Your task to perform on an android device: Open Google Chrome and click the shortcut for Amazon.com Image 0: 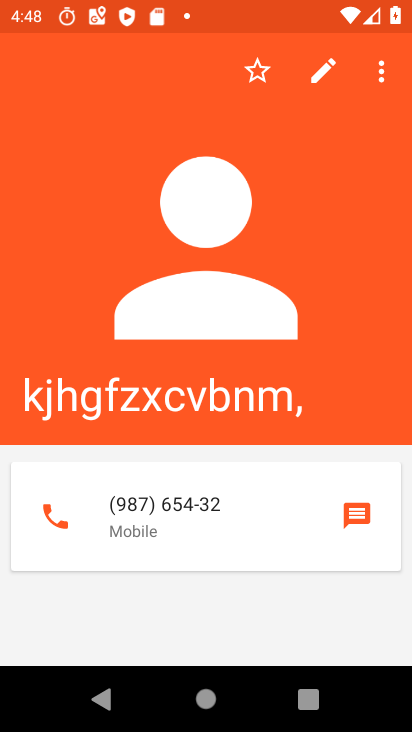
Step 0: press home button
Your task to perform on an android device: Open Google Chrome and click the shortcut for Amazon.com Image 1: 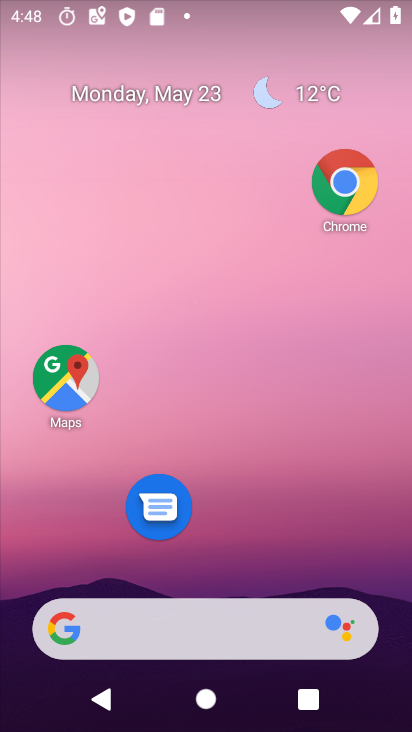
Step 1: click (355, 190)
Your task to perform on an android device: Open Google Chrome and click the shortcut for Amazon.com Image 2: 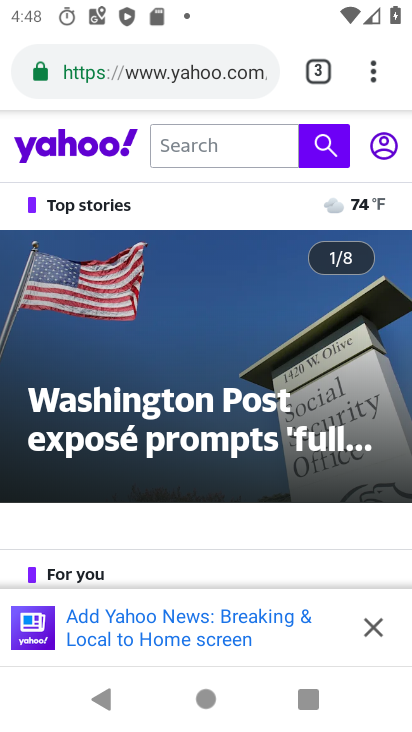
Step 2: click (390, 81)
Your task to perform on an android device: Open Google Chrome and click the shortcut for Amazon.com Image 3: 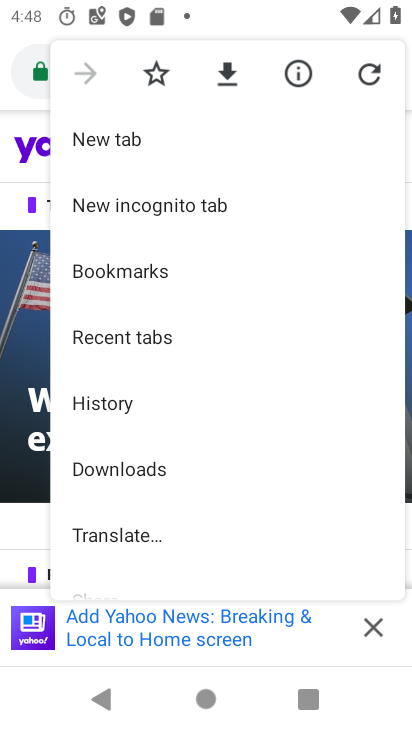
Step 3: click (181, 134)
Your task to perform on an android device: Open Google Chrome and click the shortcut for Amazon.com Image 4: 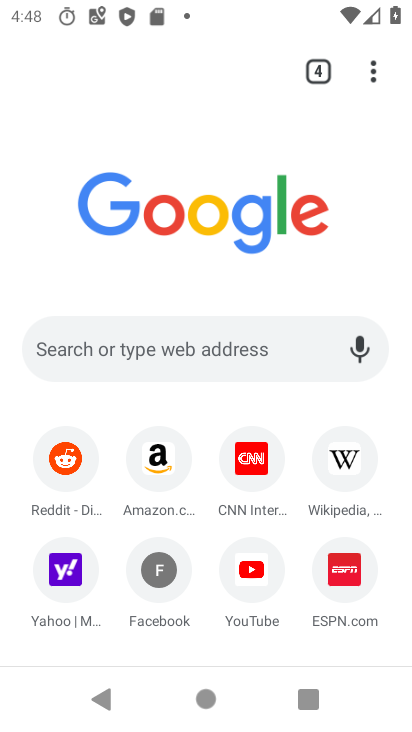
Step 4: click (159, 474)
Your task to perform on an android device: Open Google Chrome and click the shortcut for Amazon.com Image 5: 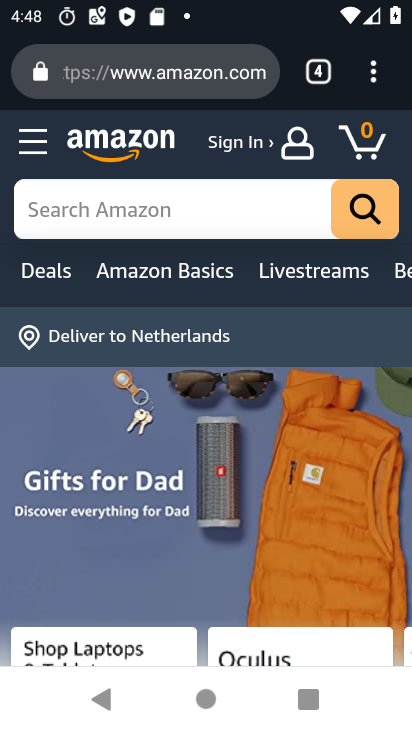
Step 5: task complete